Your task to perform on an android device: Turn off the flashlight Image 0: 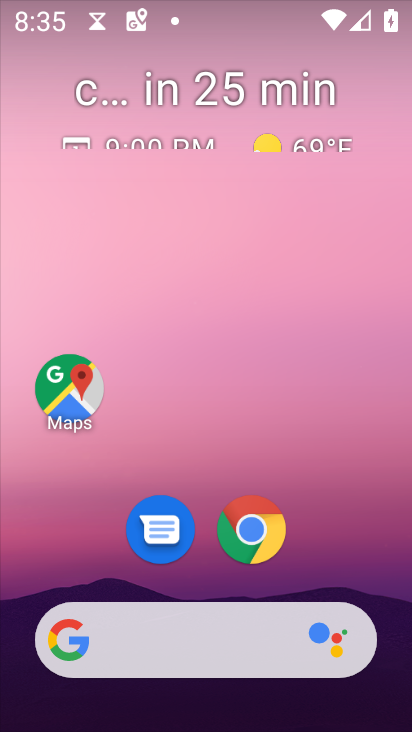
Step 0: drag from (334, 504) to (315, 37)
Your task to perform on an android device: Turn off the flashlight Image 1: 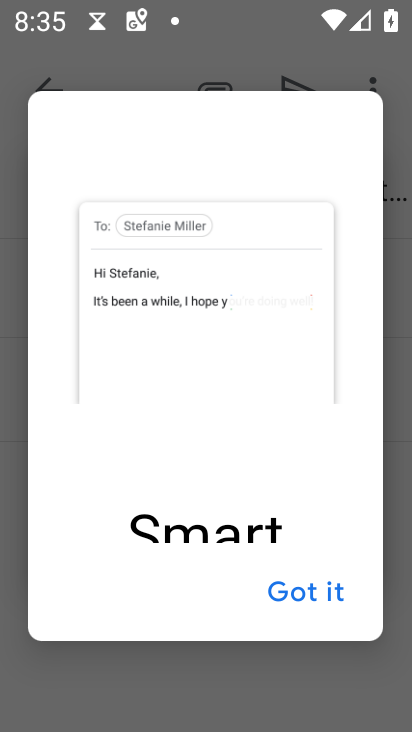
Step 1: press home button
Your task to perform on an android device: Turn off the flashlight Image 2: 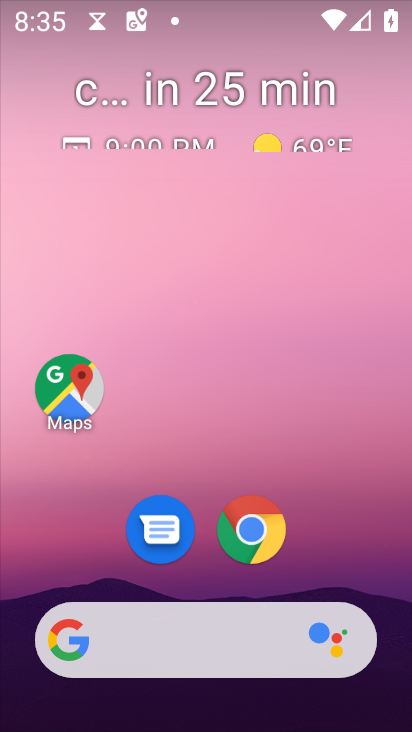
Step 2: drag from (310, 516) to (288, 14)
Your task to perform on an android device: Turn off the flashlight Image 3: 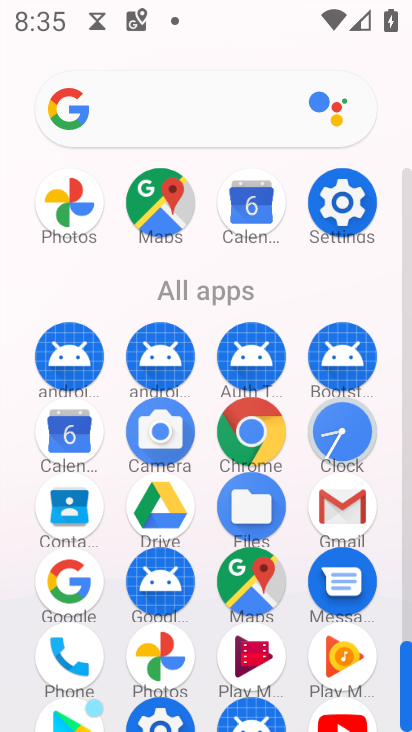
Step 3: click (344, 185)
Your task to perform on an android device: Turn off the flashlight Image 4: 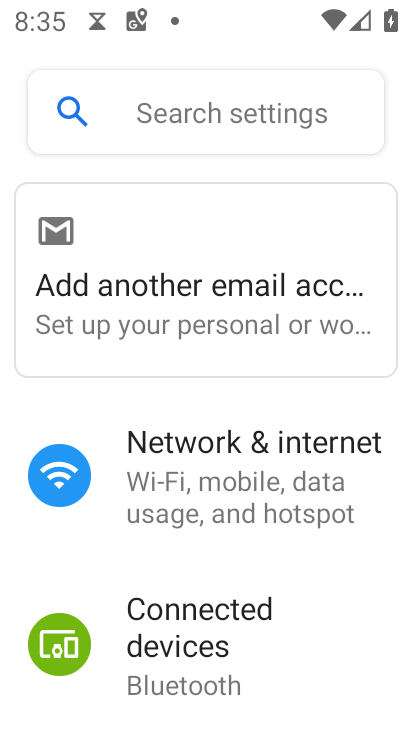
Step 4: drag from (279, 613) to (259, 233)
Your task to perform on an android device: Turn off the flashlight Image 5: 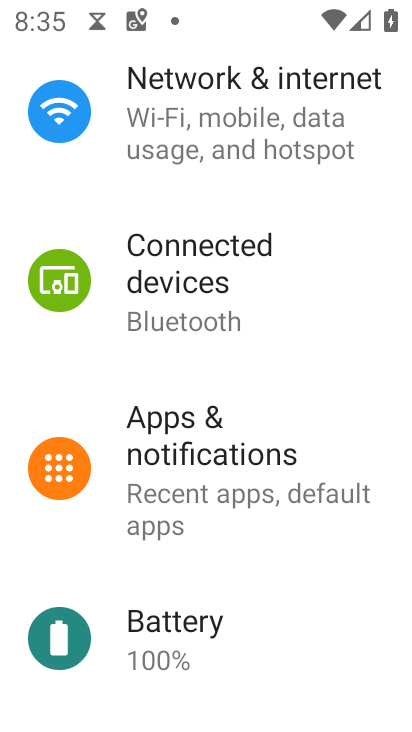
Step 5: drag from (348, 571) to (290, 190)
Your task to perform on an android device: Turn off the flashlight Image 6: 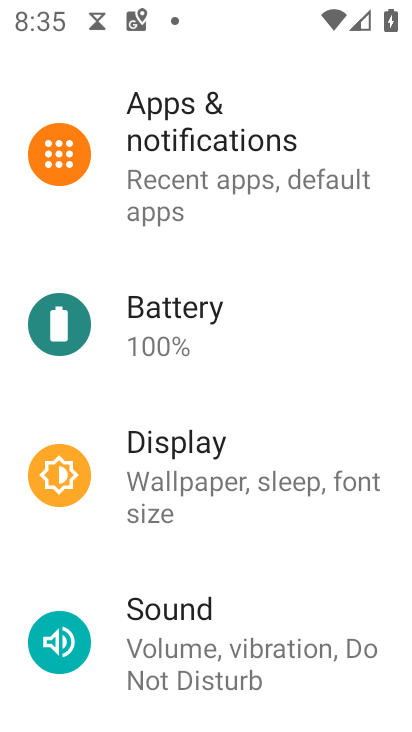
Step 6: click (276, 467)
Your task to perform on an android device: Turn off the flashlight Image 7: 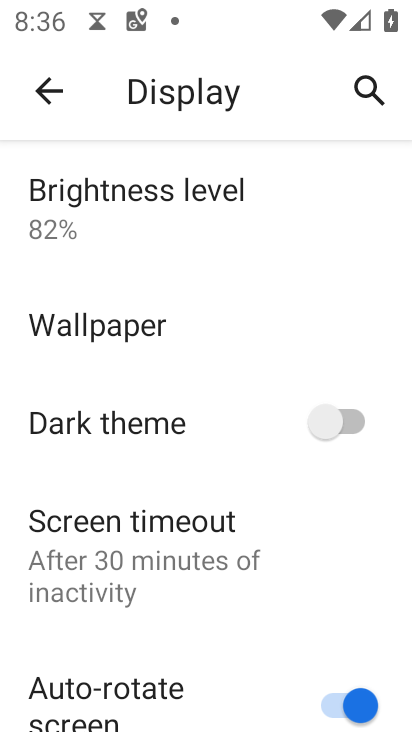
Step 7: drag from (266, 611) to (208, 160)
Your task to perform on an android device: Turn off the flashlight Image 8: 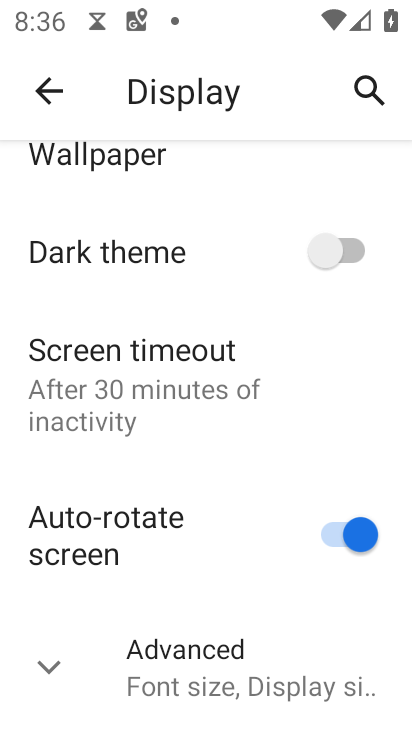
Step 8: click (249, 671)
Your task to perform on an android device: Turn off the flashlight Image 9: 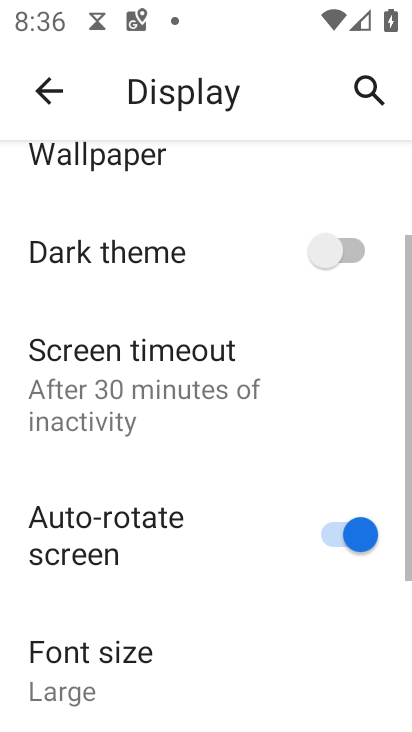
Step 9: task complete